Your task to perform on an android device: turn pop-ups on in chrome Image 0: 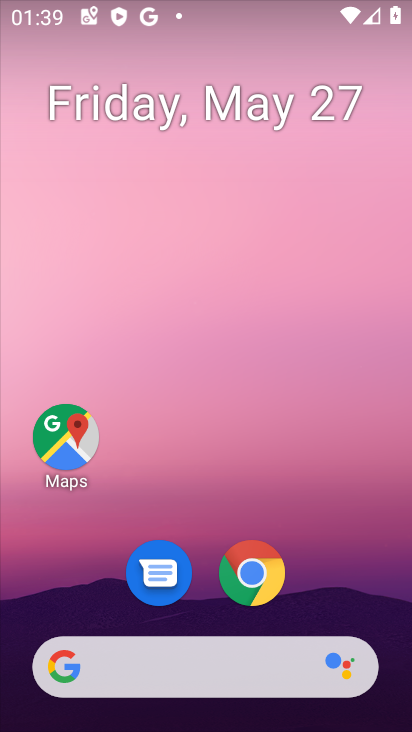
Step 0: click (264, 575)
Your task to perform on an android device: turn pop-ups on in chrome Image 1: 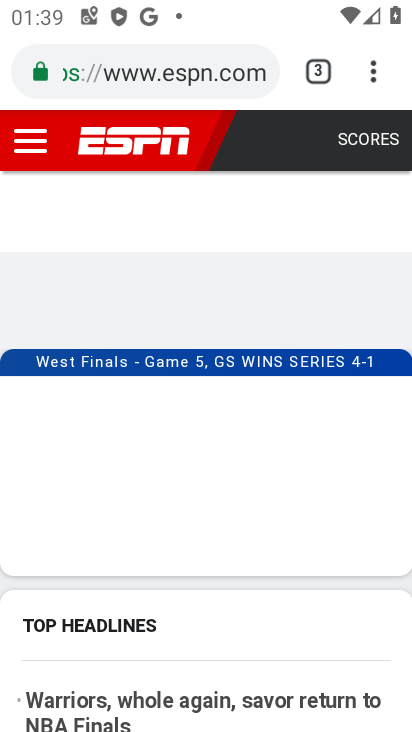
Step 1: click (369, 72)
Your task to perform on an android device: turn pop-ups on in chrome Image 2: 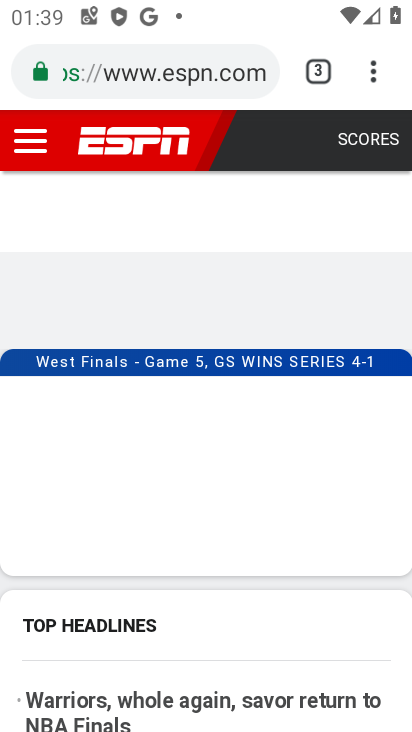
Step 2: click (367, 74)
Your task to perform on an android device: turn pop-ups on in chrome Image 3: 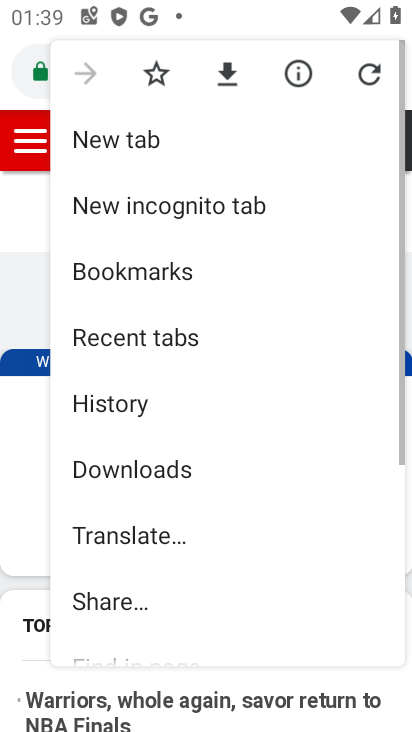
Step 3: drag from (208, 568) to (185, 178)
Your task to perform on an android device: turn pop-ups on in chrome Image 4: 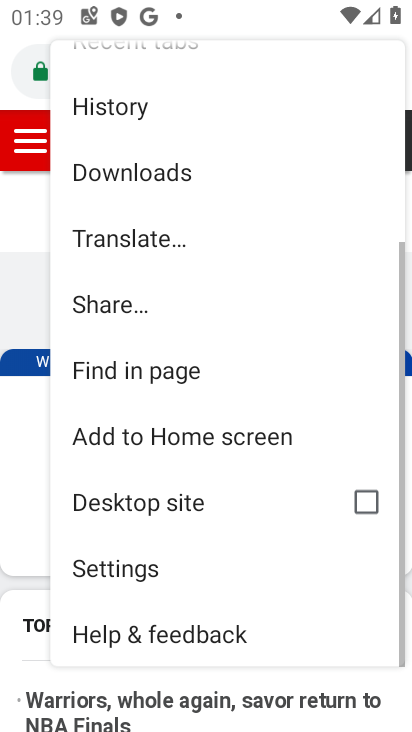
Step 4: click (133, 562)
Your task to perform on an android device: turn pop-ups on in chrome Image 5: 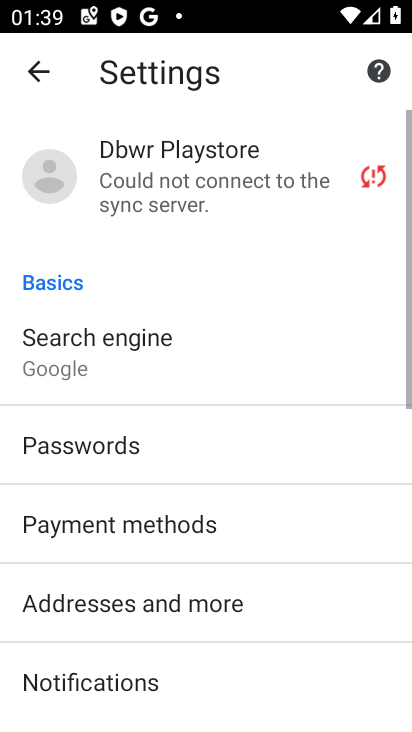
Step 5: drag from (132, 552) to (140, 113)
Your task to perform on an android device: turn pop-ups on in chrome Image 6: 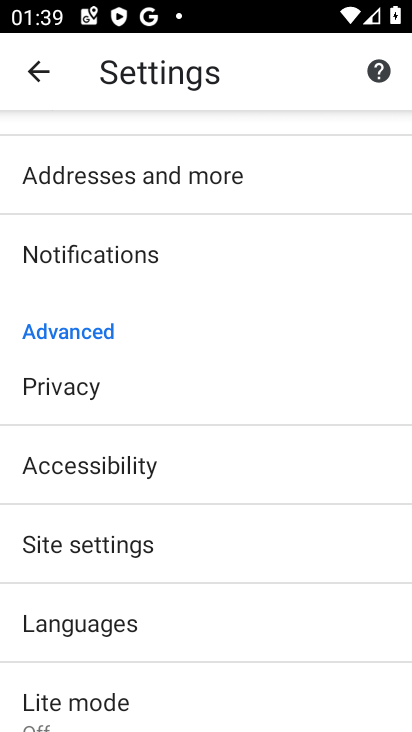
Step 6: click (112, 549)
Your task to perform on an android device: turn pop-ups on in chrome Image 7: 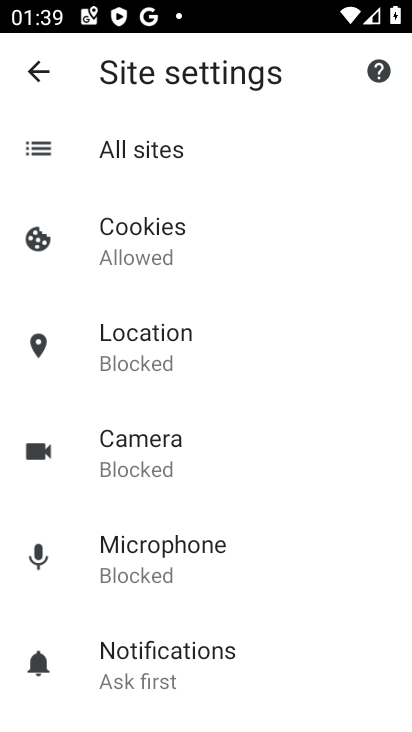
Step 7: drag from (168, 614) to (167, 286)
Your task to perform on an android device: turn pop-ups on in chrome Image 8: 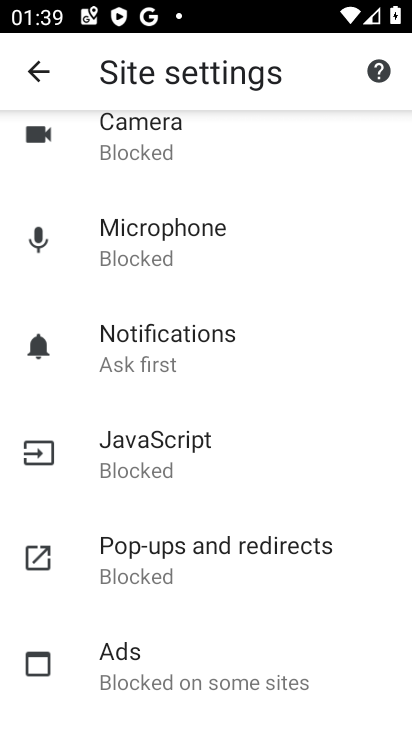
Step 8: click (192, 562)
Your task to perform on an android device: turn pop-ups on in chrome Image 9: 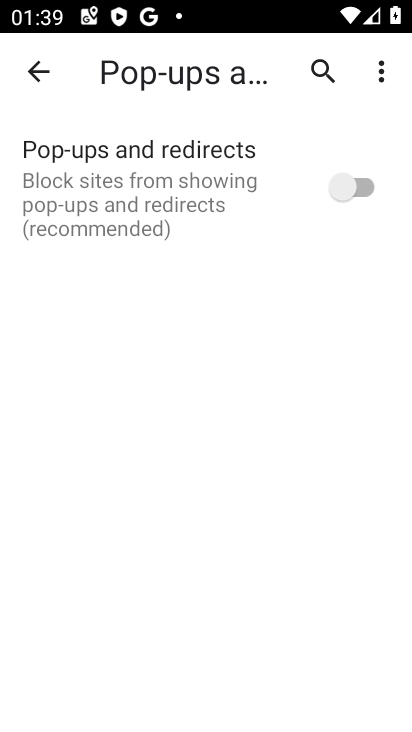
Step 9: click (365, 185)
Your task to perform on an android device: turn pop-ups on in chrome Image 10: 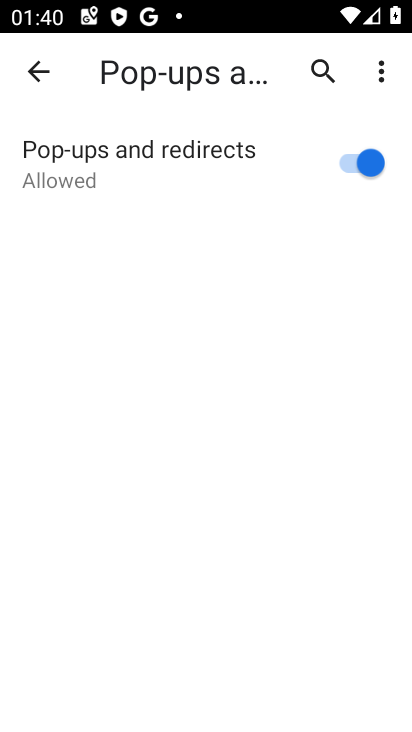
Step 10: task complete